Your task to perform on an android device: change keyboard looks Image 0: 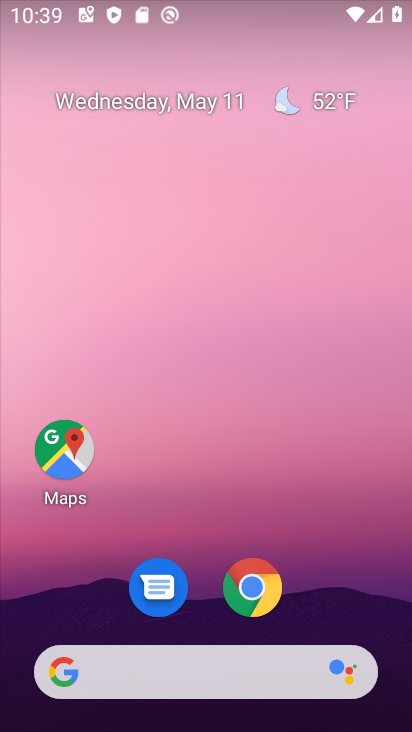
Step 0: drag from (268, 691) to (230, 348)
Your task to perform on an android device: change keyboard looks Image 1: 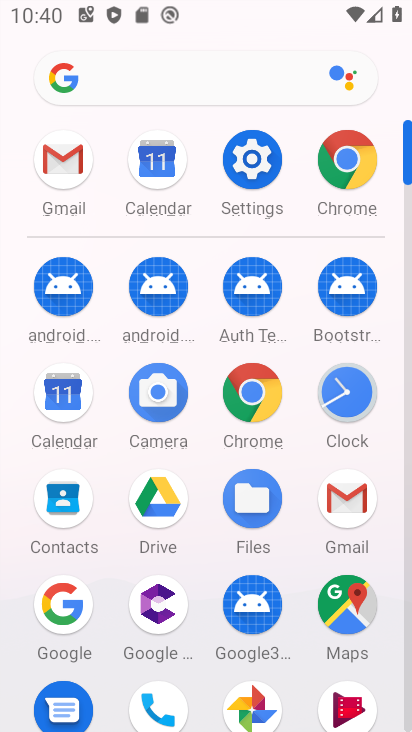
Step 1: click (249, 190)
Your task to perform on an android device: change keyboard looks Image 2: 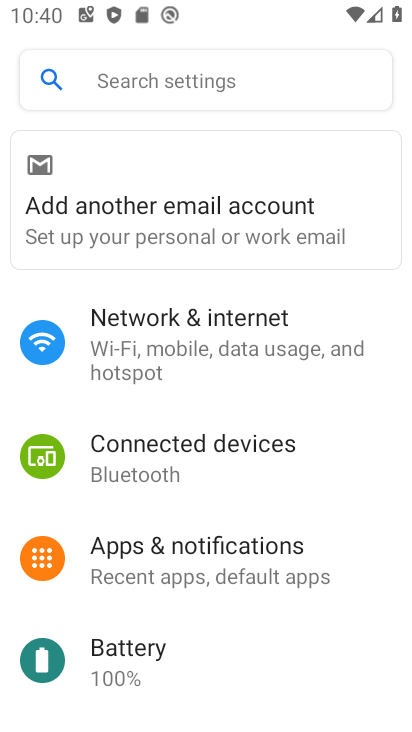
Step 2: click (197, 90)
Your task to perform on an android device: change keyboard looks Image 3: 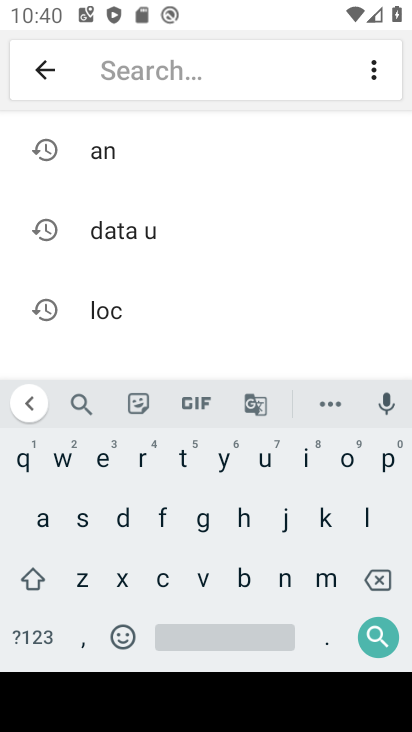
Step 3: click (321, 518)
Your task to perform on an android device: change keyboard looks Image 4: 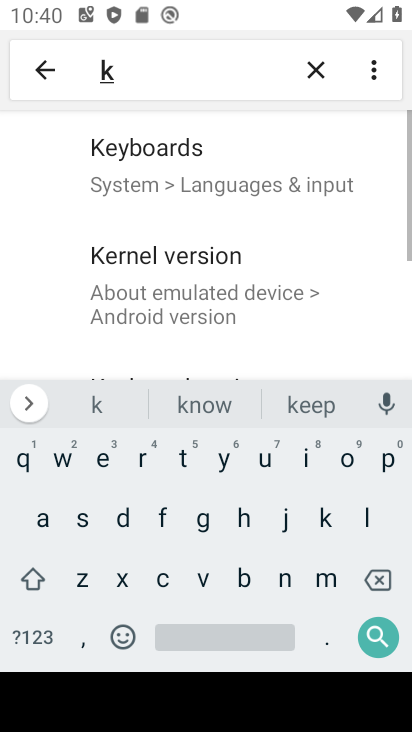
Step 4: click (95, 464)
Your task to perform on an android device: change keyboard looks Image 5: 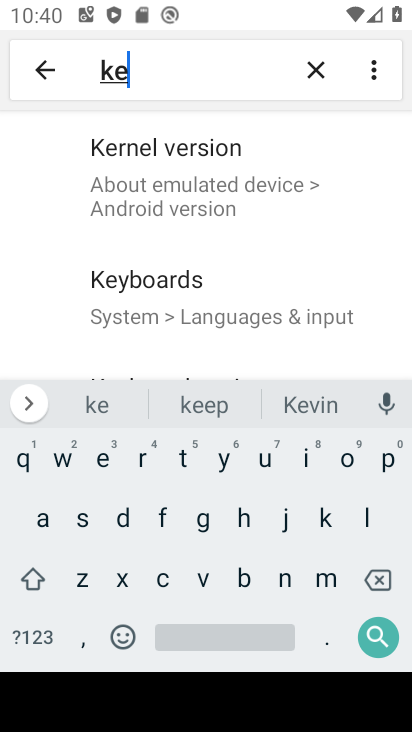
Step 5: click (174, 293)
Your task to perform on an android device: change keyboard looks Image 6: 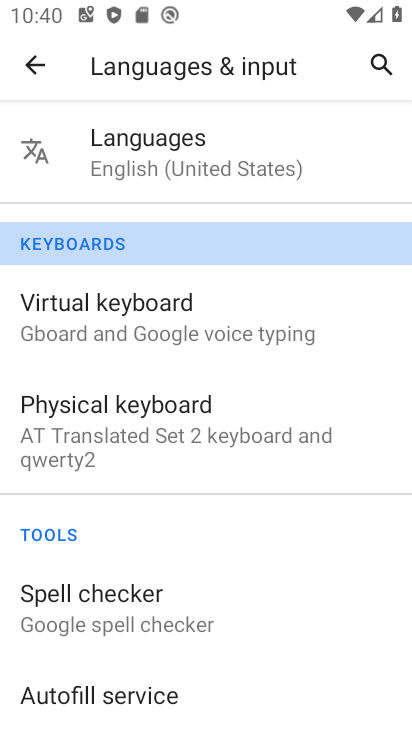
Step 6: click (165, 333)
Your task to perform on an android device: change keyboard looks Image 7: 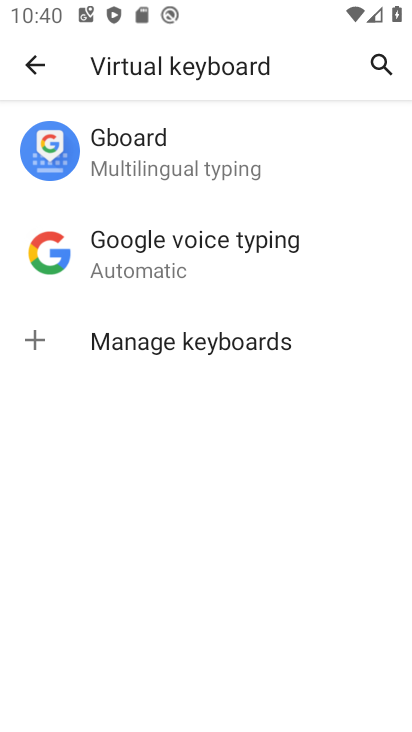
Step 7: click (169, 176)
Your task to perform on an android device: change keyboard looks Image 8: 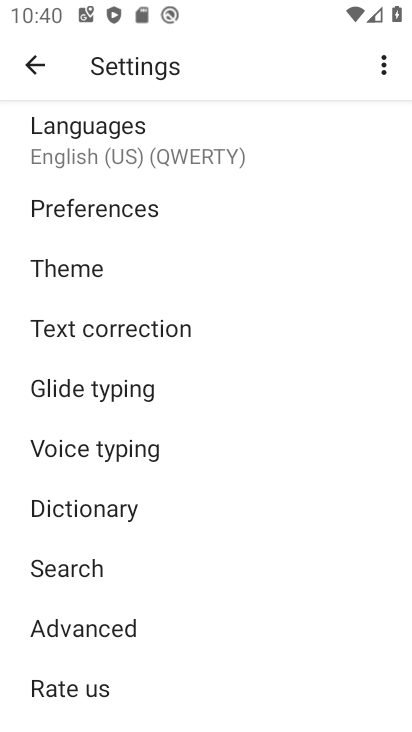
Step 8: click (99, 274)
Your task to perform on an android device: change keyboard looks Image 9: 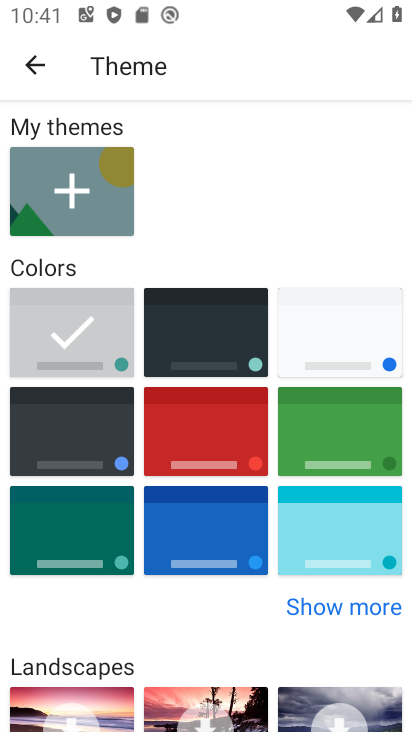
Step 9: click (105, 552)
Your task to perform on an android device: change keyboard looks Image 10: 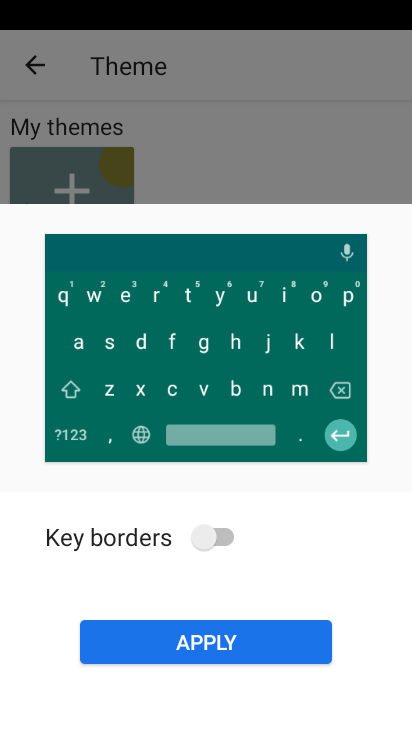
Step 10: click (203, 533)
Your task to perform on an android device: change keyboard looks Image 11: 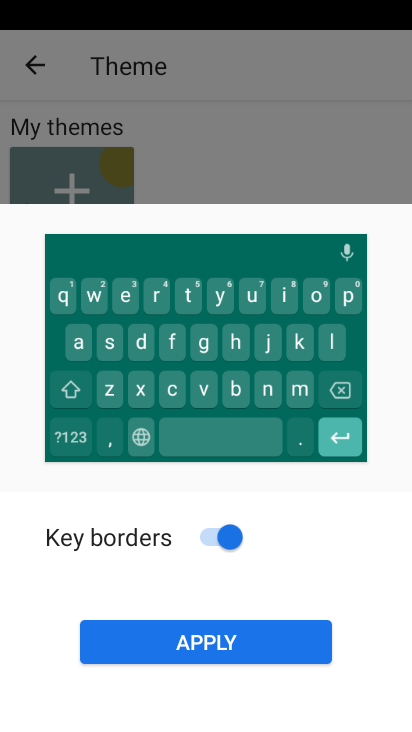
Step 11: click (206, 636)
Your task to perform on an android device: change keyboard looks Image 12: 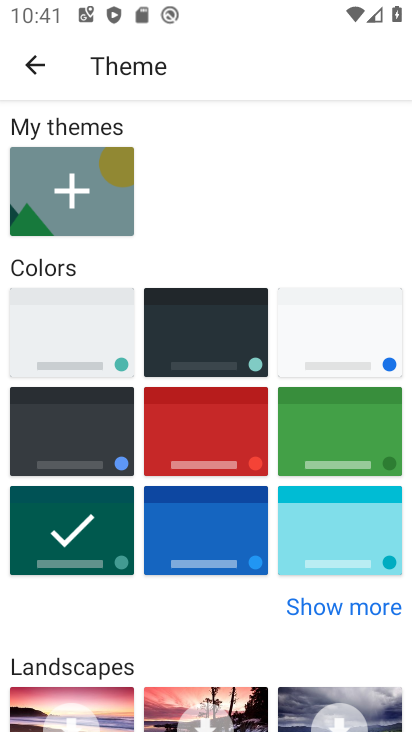
Step 12: task complete